Your task to perform on an android device: turn off improve location accuracy Image 0: 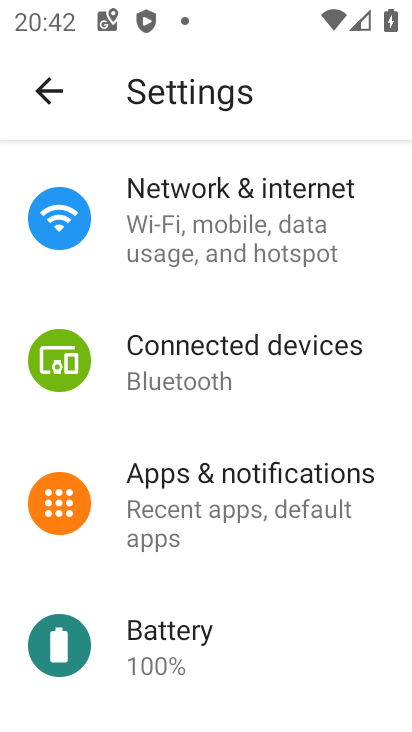
Step 0: press home button
Your task to perform on an android device: turn off improve location accuracy Image 1: 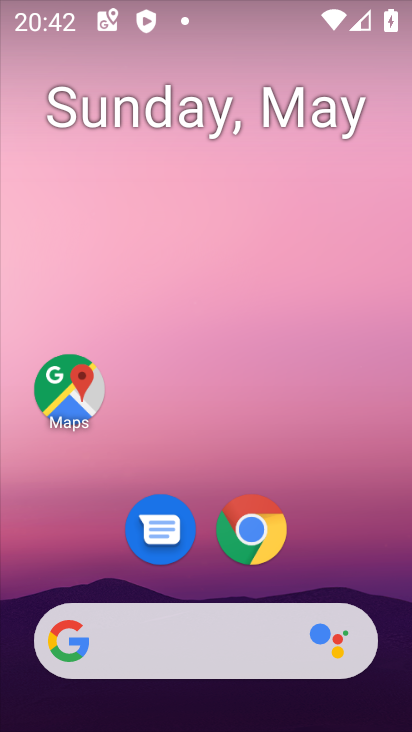
Step 1: drag from (322, 570) to (293, 17)
Your task to perform on an android device: turn off improve location accuracy Image 2: 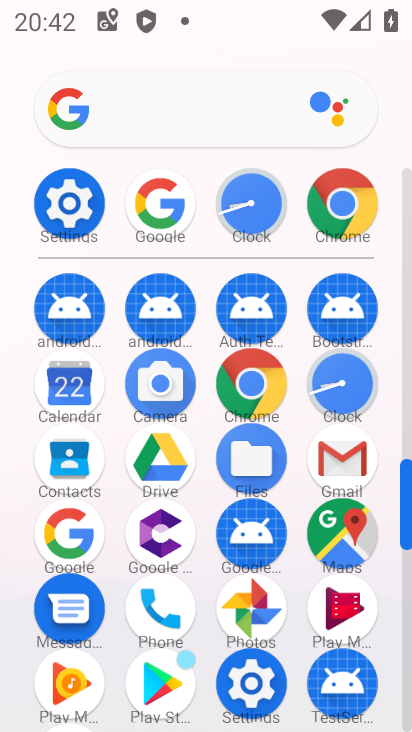
Step 2: click (60, 207)
Your task to perform on an android device: turn off improve location accuracy Image 3: 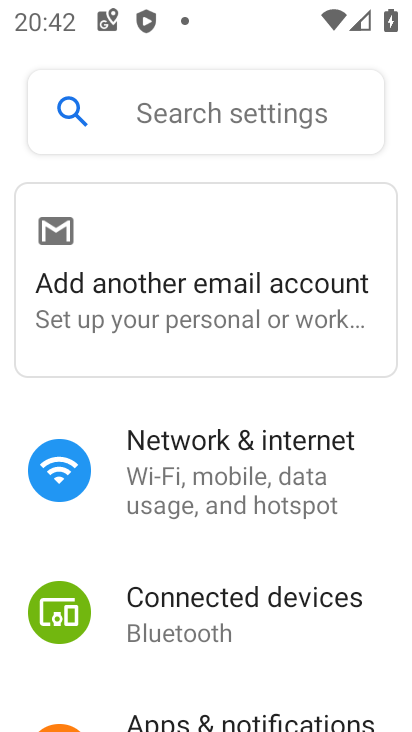
Step 3: drag from (372, 648) to (351, 5)
Your task to perform on an android device: turn off improve location accuracy Image 4: 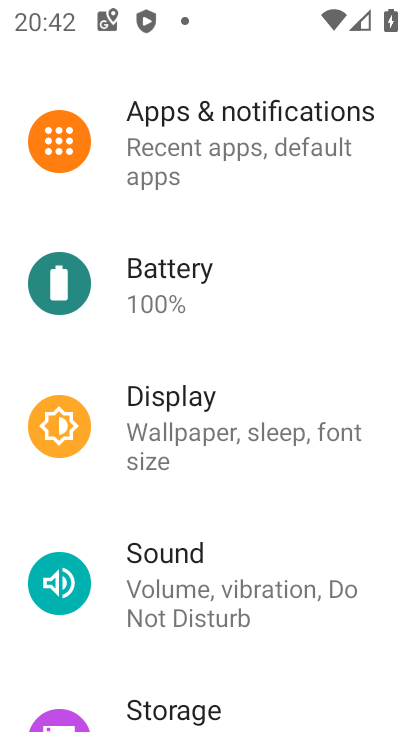
Step 4: drag from (350, 550) to (358, 38)
Your task to perform on an android device: turn off improve location accuracy Image 5: 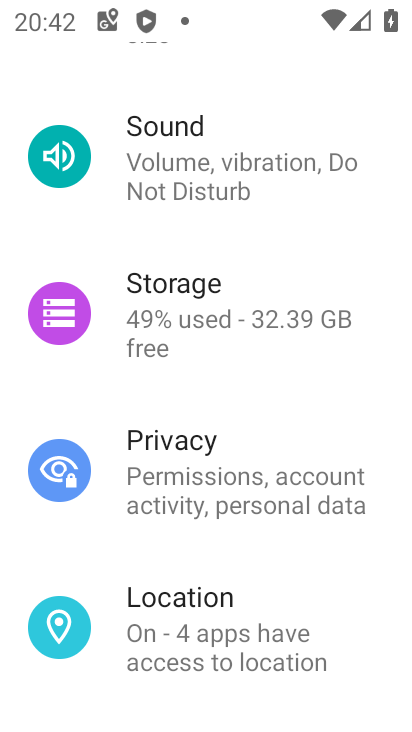
Step 5: click (165, 637)
Your task to perform on an android device: turn off improve location accuracy Image 6: 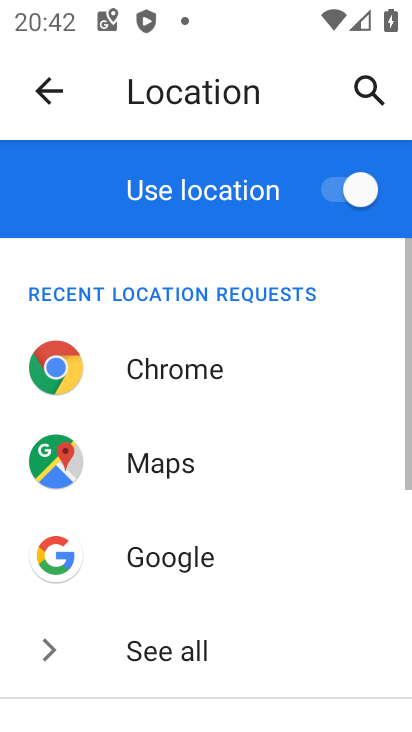
Step 6: drag from (370, 603) to (331, 2)
Your task to perform on an android device: turn off improve location accuracy Image 7: 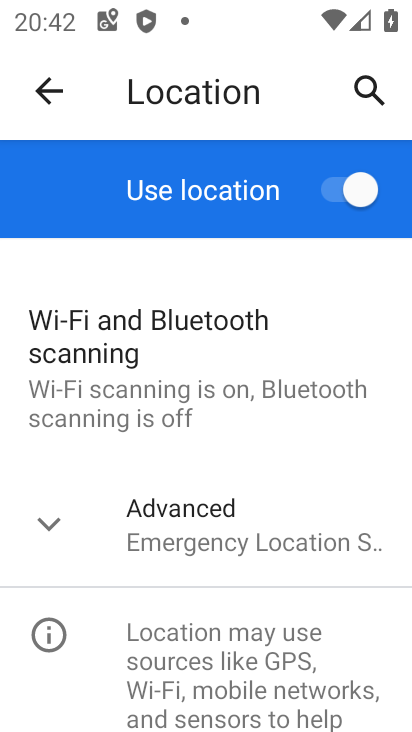
Step 7: click (49, 531)
Your task to perform on an android device: turn off improve location accuracy Image 8: 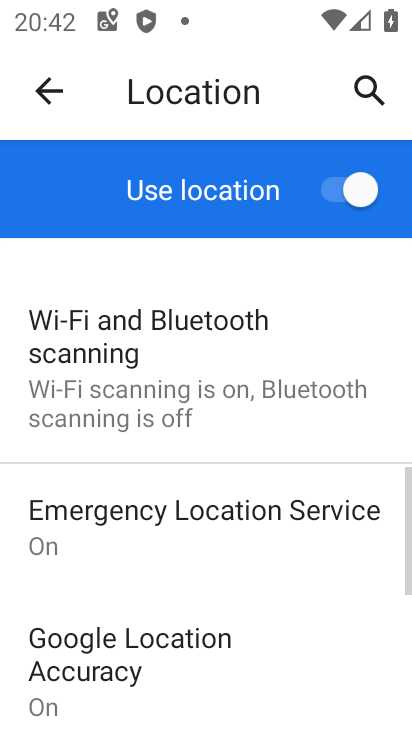
Step 8: drag from (293, 646) to (280, 225)
Your task to perform on an android device: turn off improve location accuracy Image 9: 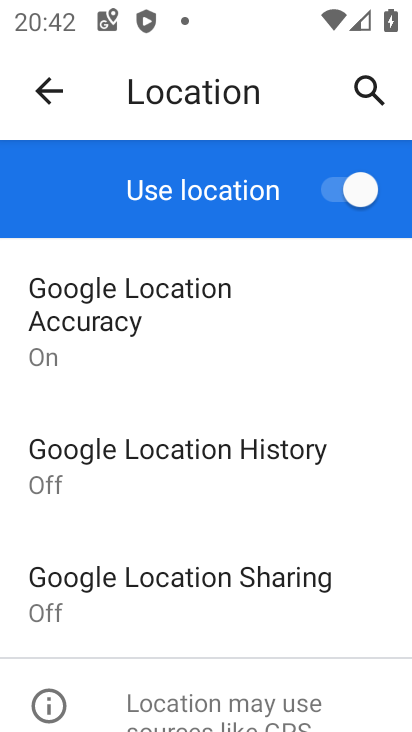
Step 9: click (64, 319)
Your task to perform on an android device: turn off improve location accuracy Image 10: 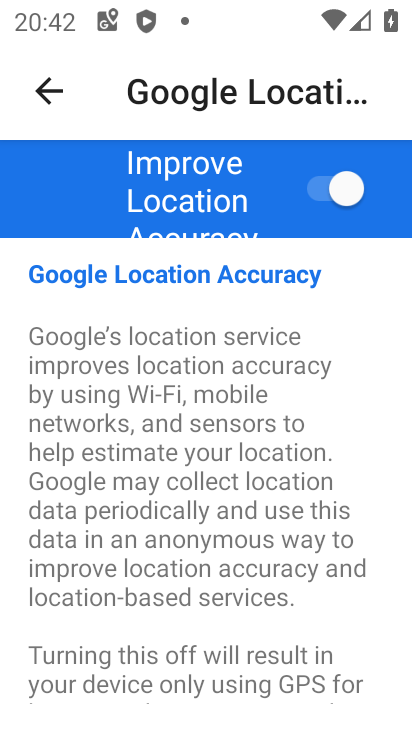
Step 10: click (351, 190)
Your task to perform on an android device: turn off improve location accuracy Image 11: 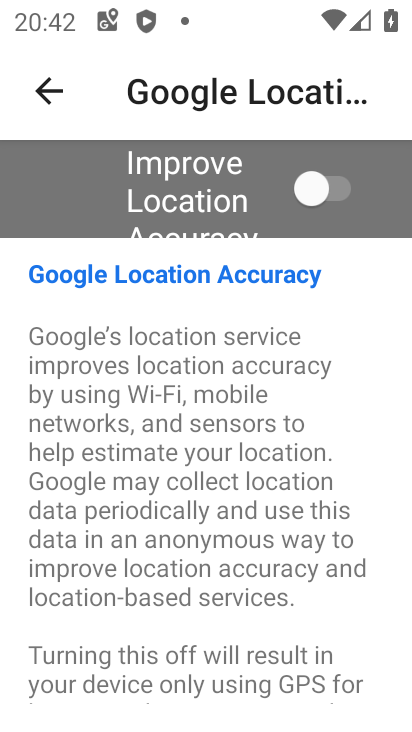
Step 11: task complete